Your task to perform on an android device: check out phone information Image 0: 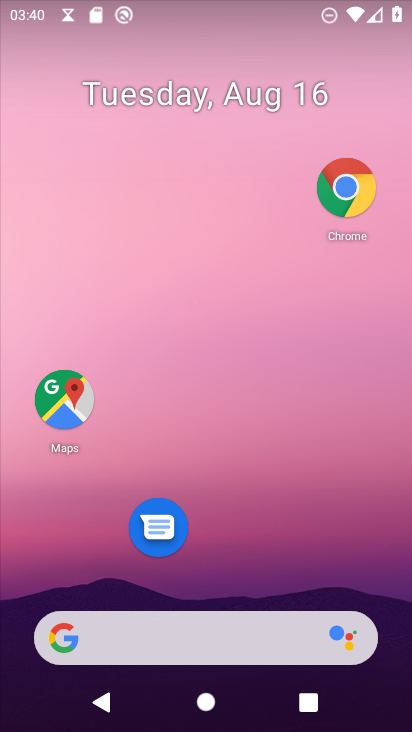
Step 0: drag from (223, 588) to (247, 102)
Your task to perform on an android device: check out phone information Image 1: 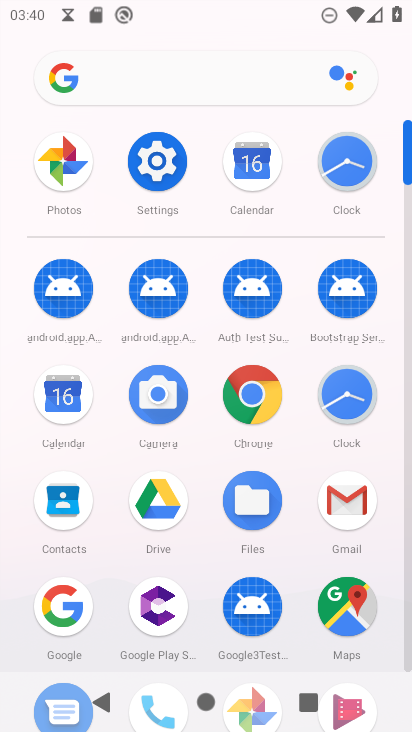
Step 1: drag from (202, 644) to (229, 81)
Your task to perform on an android device: check out phone information Image 2: 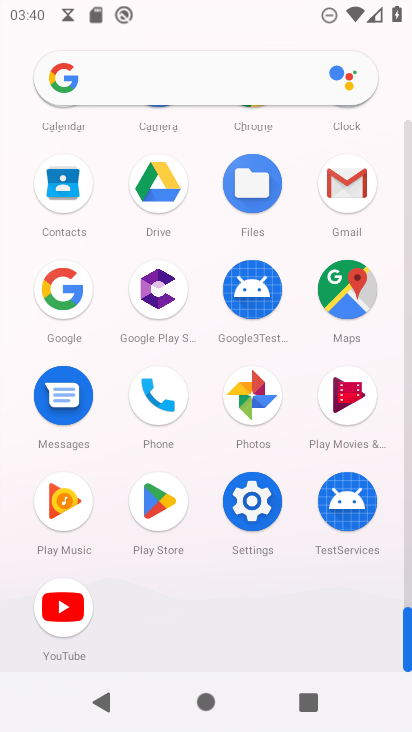
Step 2: click (245, 494)
Your task to perform on an android device: check out phone information Image 3: 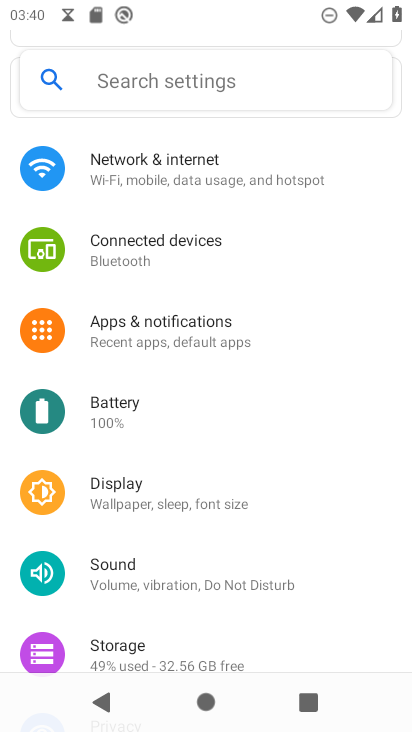
Step 3: drag from (221, 657) to (183, 15)
Your task to perform on an android device: check out phone information Image 4: 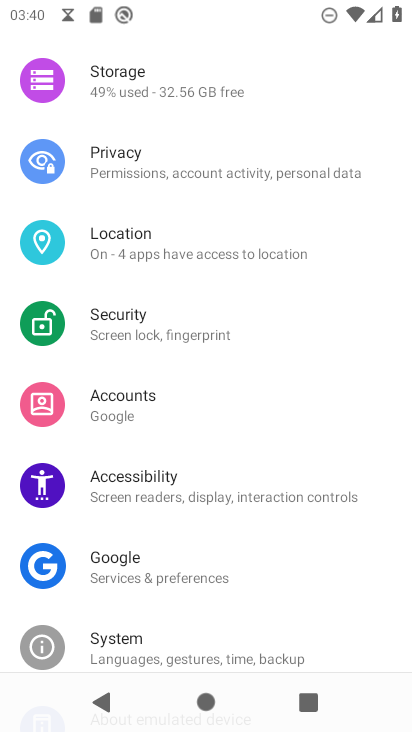
Step 4: drag from (195, 628) to (245, 14)
Your task to perform on an android device: check out phone information Image 5: 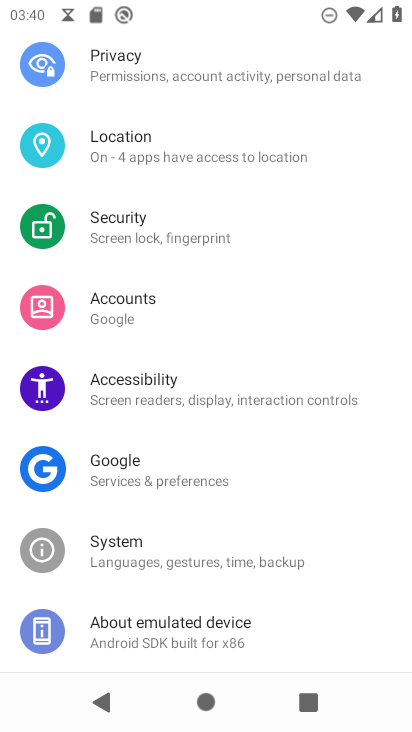
Step 5: click (133, 639)
Your task to perform on an android device: check out phone information Image 6: 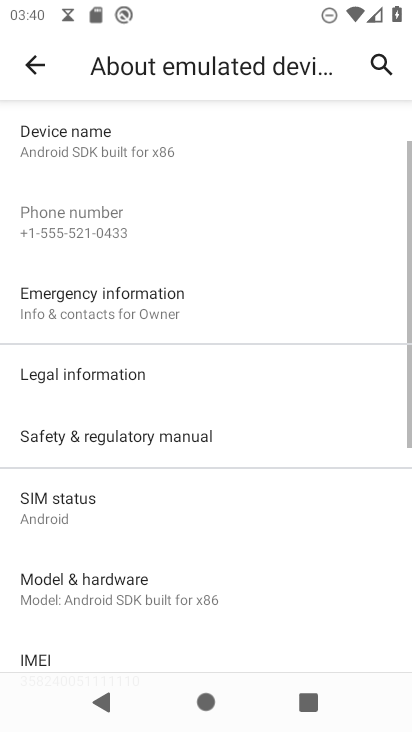
Step 6: task complete